Your task to perform on an android device: turn on improve location accuracy Image 0: 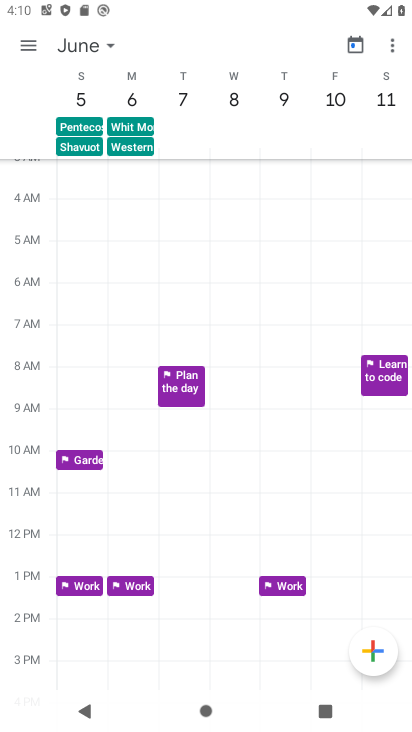
Step 0: press home button
Your task to perform on an android device: turn on improve location accuracy Image 1: 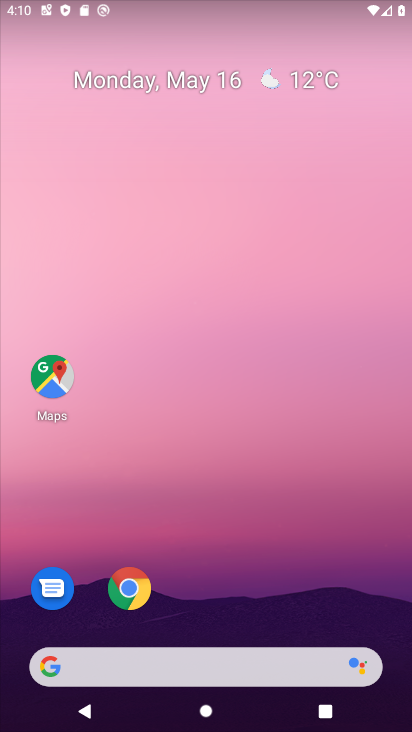
Step 1: drag from (225, 623) to (215, 64)
Your task to perform on an android device: turn on improve location accuracy Image 2: 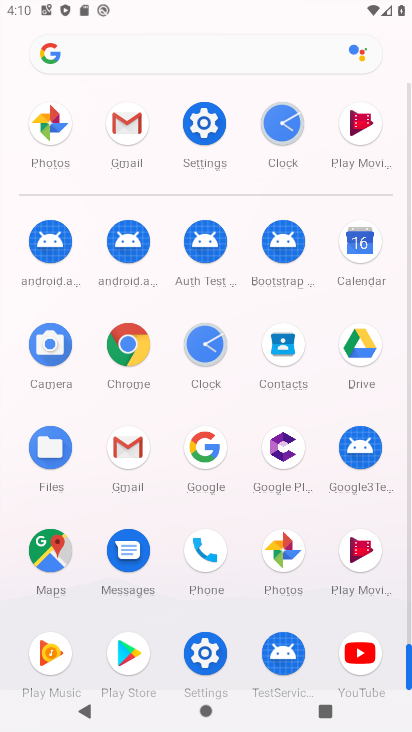
Step 2: click (198, 129)
Your task to perform on an android device: turn on improve location accuracy Image 3: 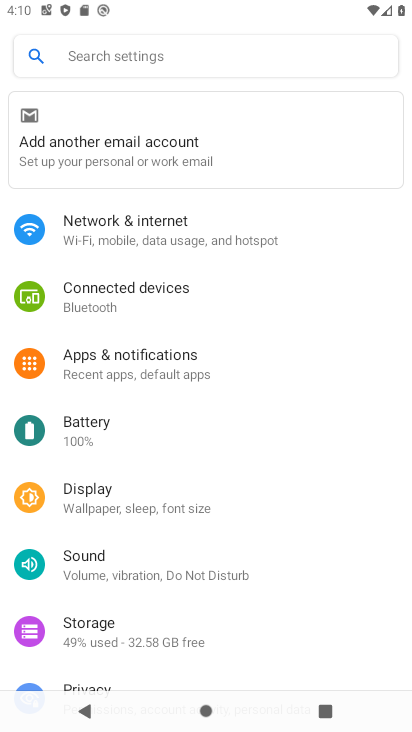
Step 3: drag from (224, 661) to (245, 262)
Your task to perform on an android device: turn on improve location accuracy Image 4: 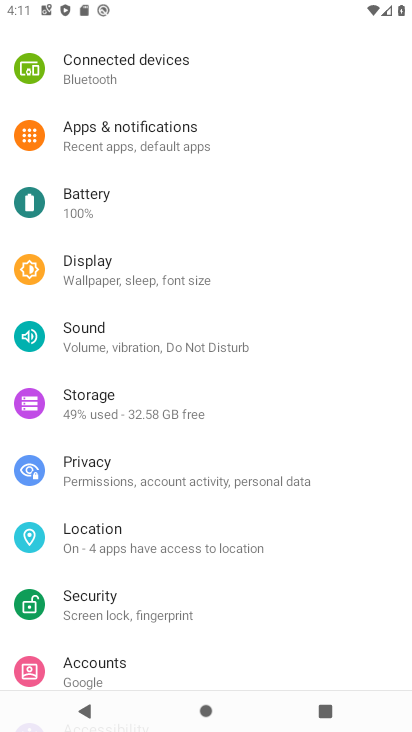
Step 4: click (186, 536)
Your task to perform on an android device: turn on improve location accuracy Image 5: 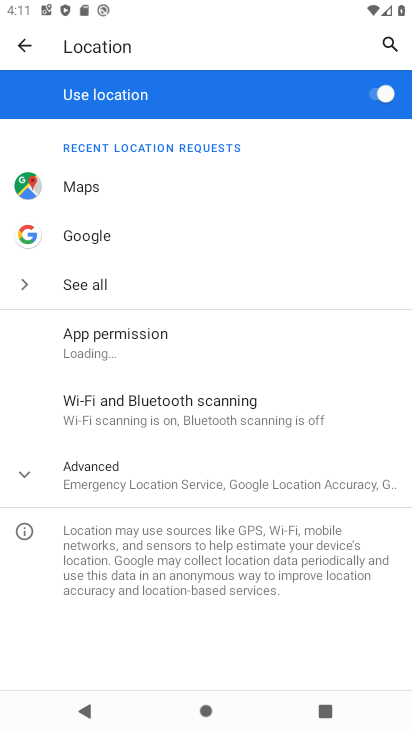
Step 5: click (152, 477)
Your task to perform on an android device: turn on improve location accuracy Image 6: 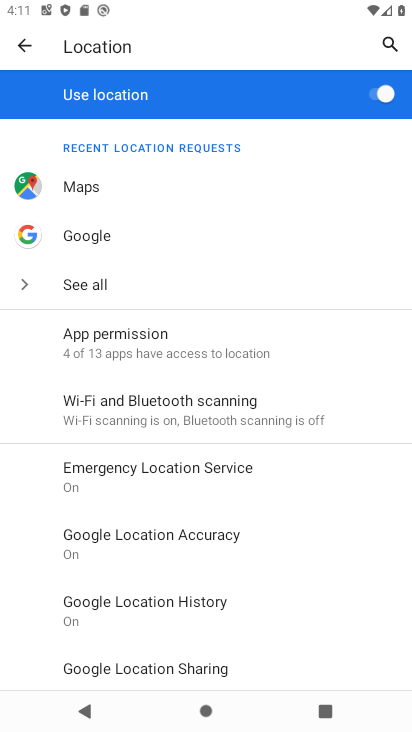
Step 6: click (198, 549)
Your task to perform on an android device: turn on improve location accuracy Image 7: 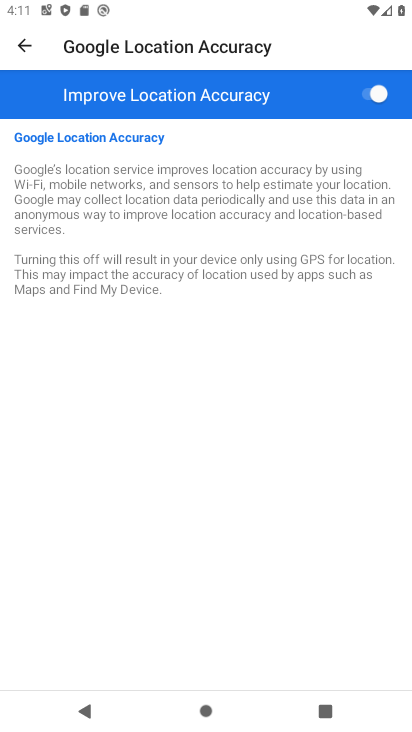
Step 7: task complete